Your task to perform on an android device: change timer sound Image 0: 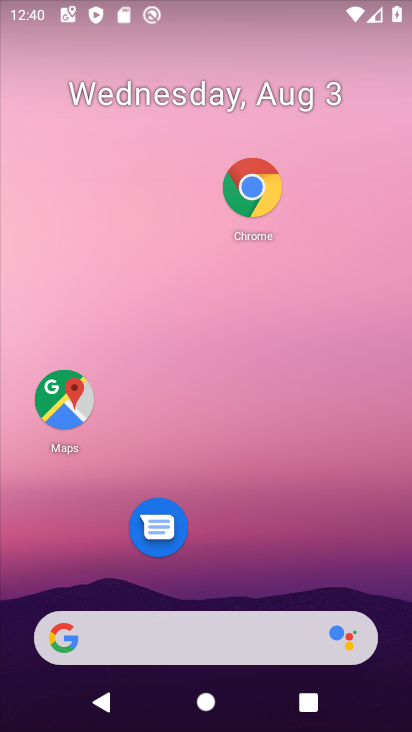
Step 0: drag from (216, 585) to (239, 248)
Your task to perform on an android device: change timer sound Image 1: 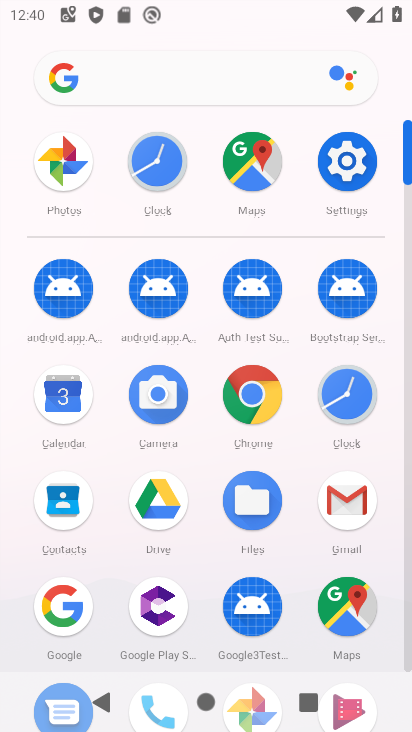
Step 1: click (349, 399)
Your task to perform on an android device: change timer sound Image 2: 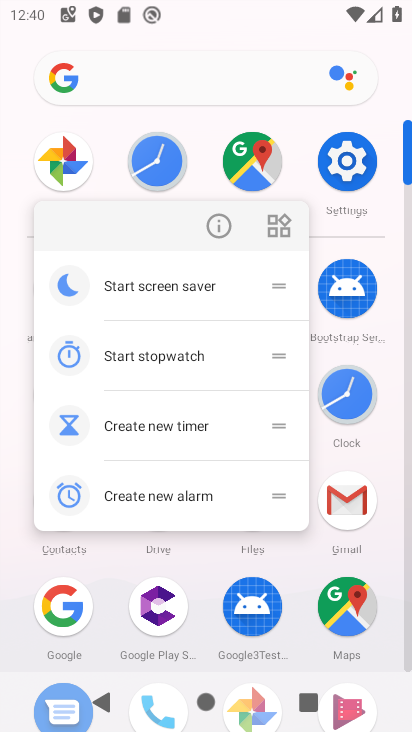
Step 2: click (368, 405)
Your task to perform on an android device: change timer sound Image 3: 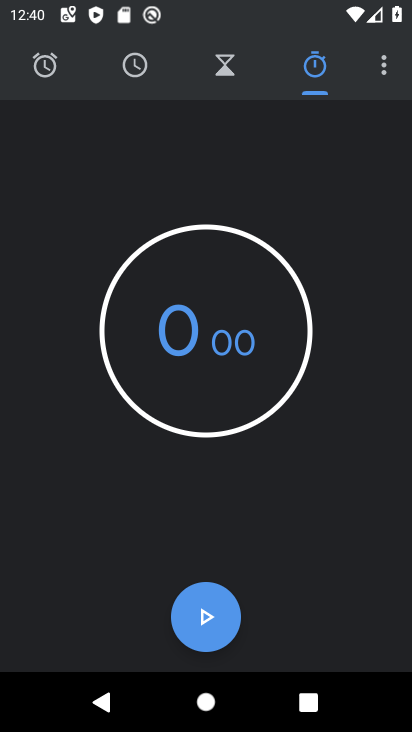
Step 3: click (384, 66)
Your task to perform on an android device: change timer sound Image 4: 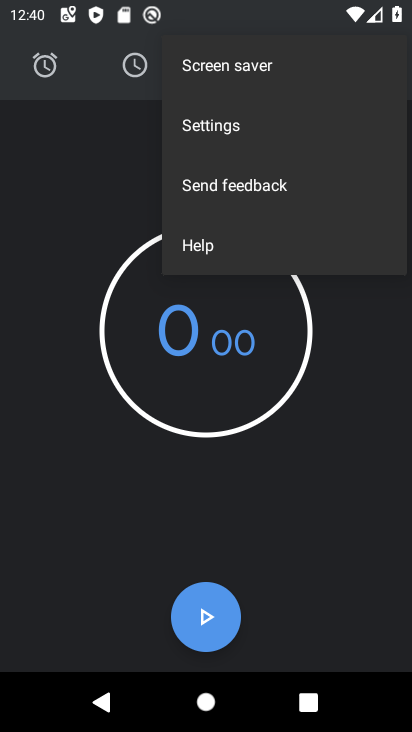
Step 4: click (225, 134)
Your task to perform on an android device: change timer sound Image 5: 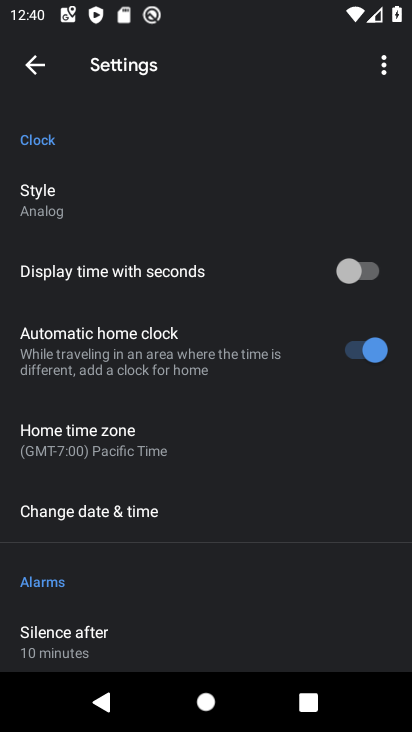
Step 5: drag from (125, 542) to (134, 411)
Your task to perform on an android device: change timer sound Image 6: 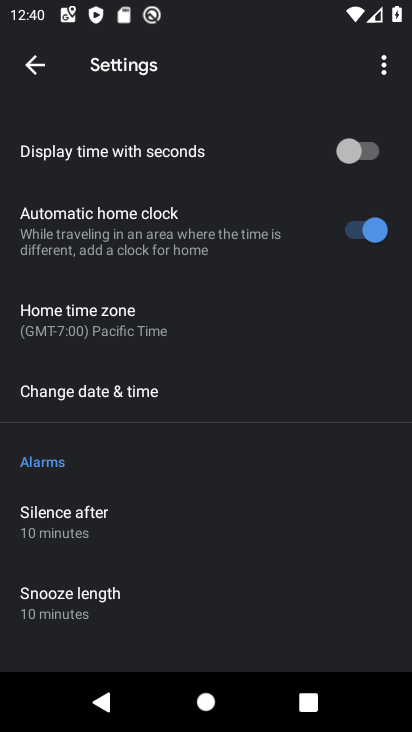
Step 6: drag from (160, 579) to (170, 469)
Your task to perform on an android device: change timer sound Image 7: 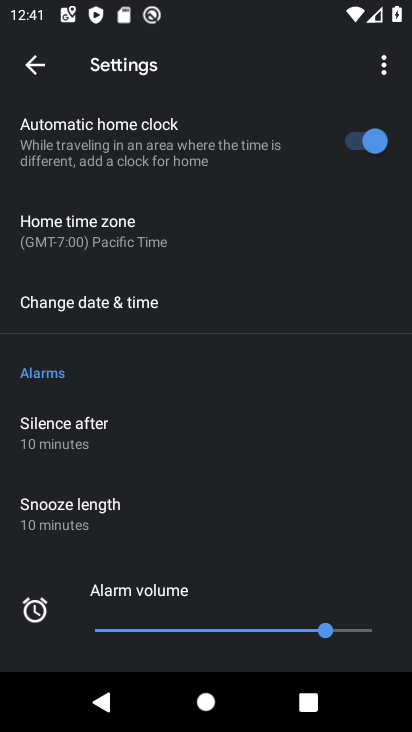
Step 7: drag from (118, 528) to (149, 297)
Your task to perform on an android device: change timer sound Image 8: 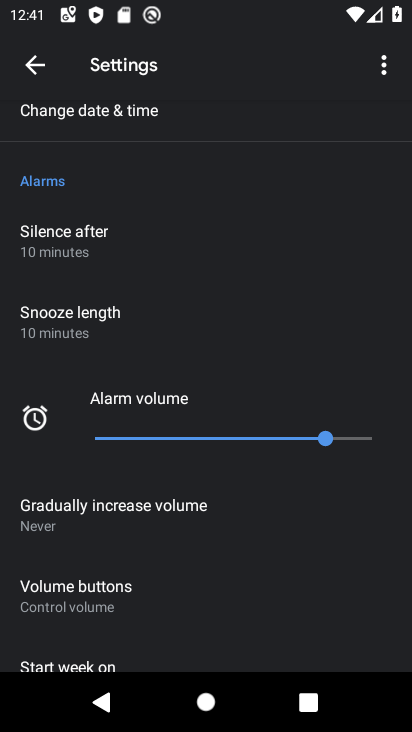
Step 8: drag from (133, 599) to (160, 313)
Your task to perform on an android device: change timer sound Image 9: 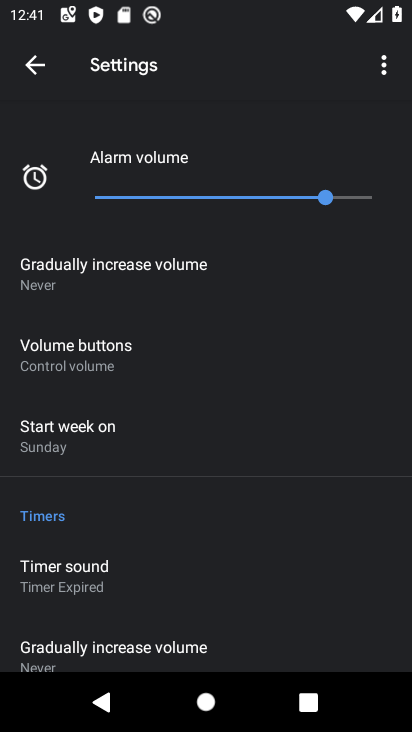
Step 9: click (103, 576)
Your task to perform on an android device: change timer sound Image 10: 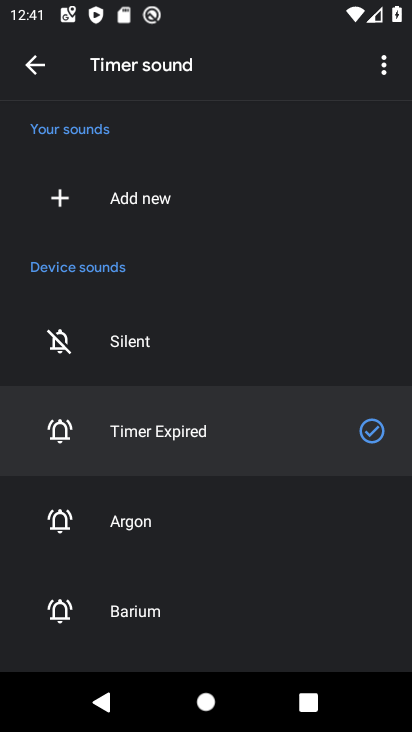
Step 10: click (141, 608)
Your task to perform on an android device: change timer sound Image 11: 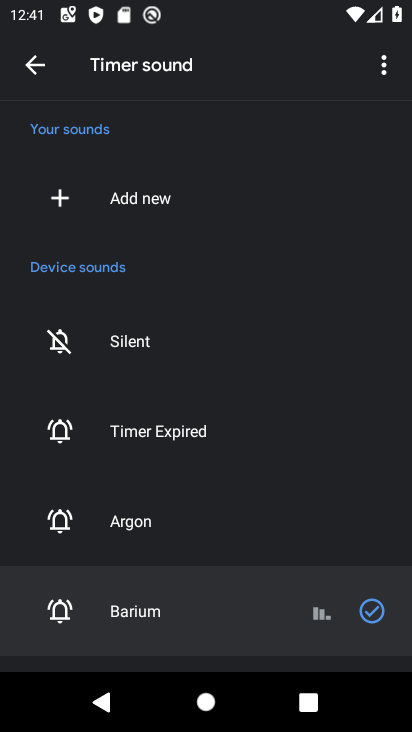
Step 11: task complete